Your task to perform on an android device: Open Google Maps Image 0: 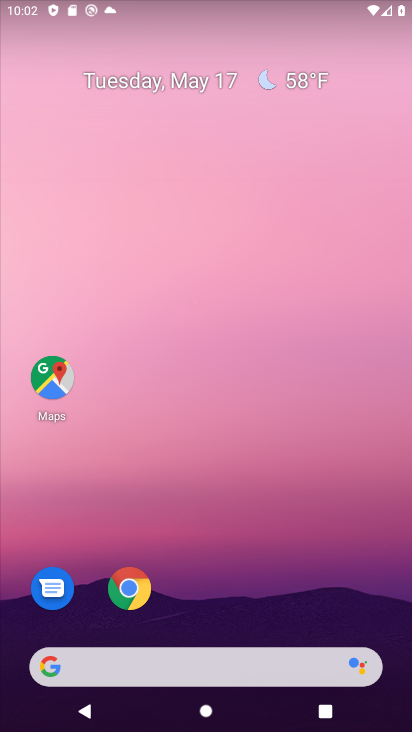
Step 0: click (55, 376)
Your task to perform on an android device: Open Google Maps Image 1: 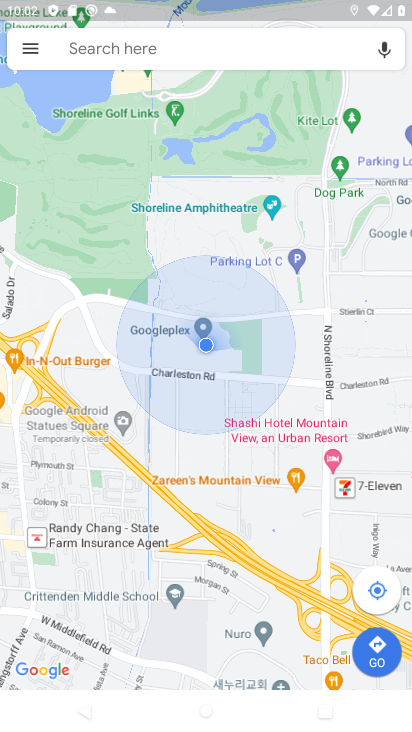
Step 1: task complete